Your task to perform on an android device: Clear all items from cart on costco. Search for asus rog on costco, select the first entry, and add it to the cart. Image 0: 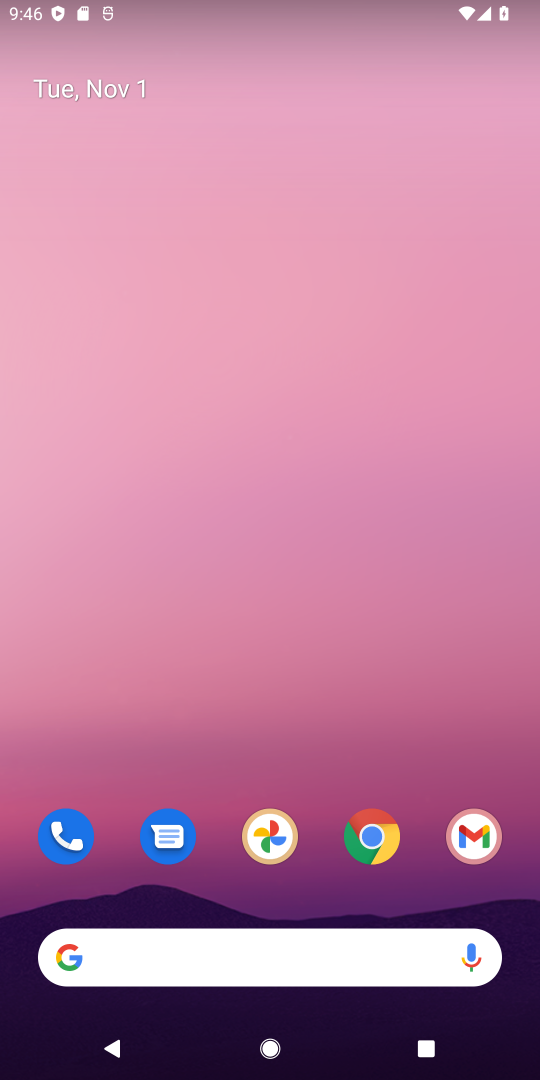
Step 0: click (363, 833)
Your task to perform on an android device: Clear all items from cart on costco. Search for asus rog on costco, select the first entry, and add it to the cart. Image 1: 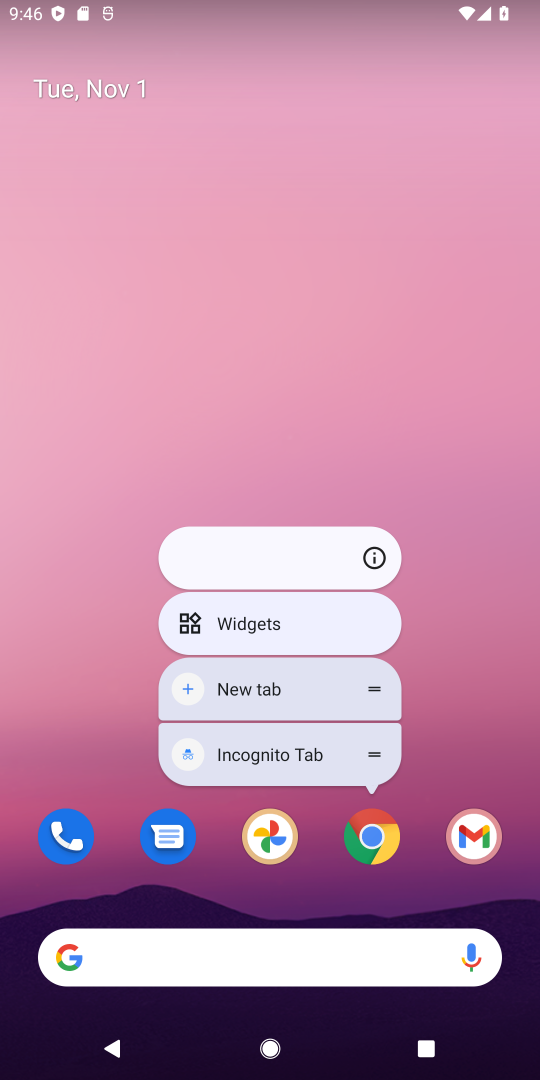
Step 1: click (368, 848)
Your task to perform on an android device: Clear all items from cart on costco. Search for asus rog on costco, select the first entry, and add it to the cart. Image 2: 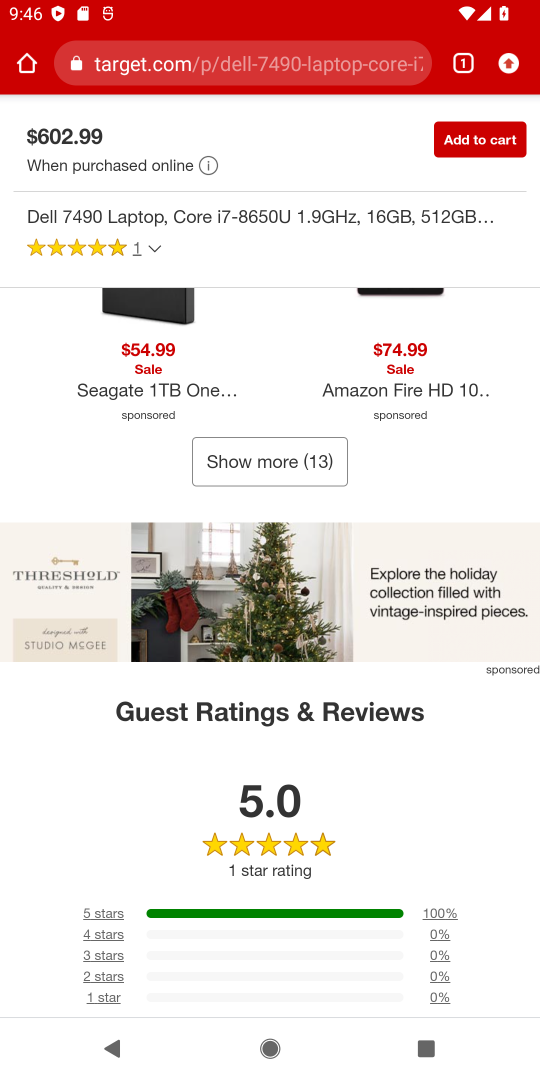
Step 2: click (193, 63)
Your task to perform on an android device: Clear all items from cart on costco. Search for asus rog on costco, select the first entry, and add it to the cart. Image 3: 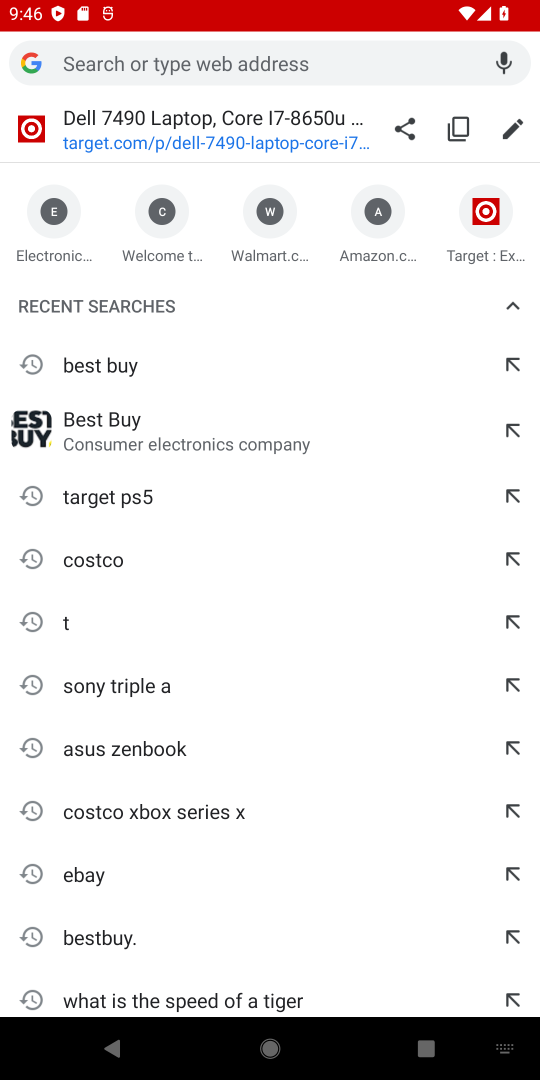
Step 3: type " costco"
Your task to perform on an android device: Clear all items from cart on costco. Search for asus rog on costco, select the first entry, and add it to the cart. Image 4: 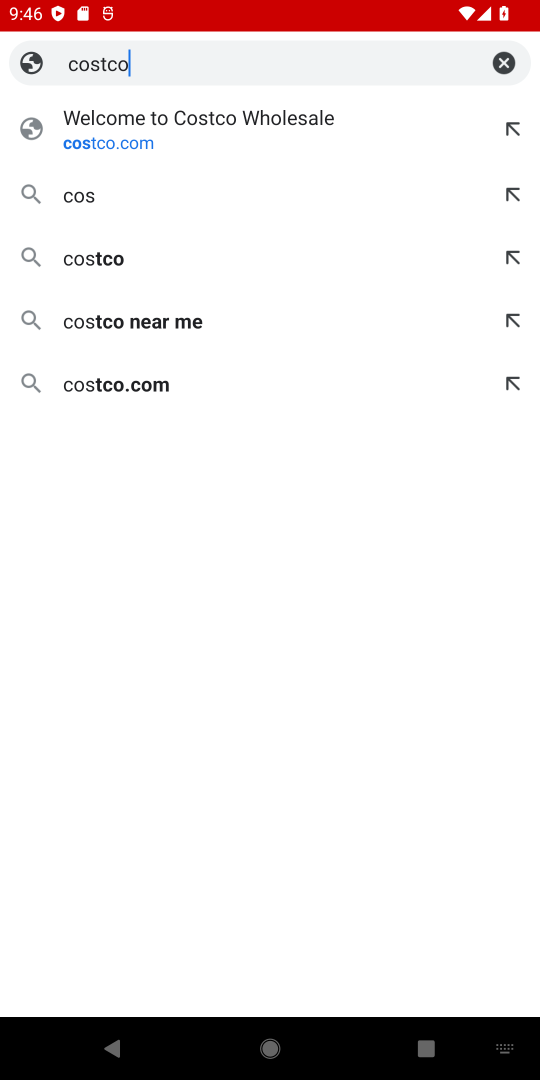
Step 4: type ""
Your task to perform on an android device: Clear all items from cart on costco. Search for asus rog on costco, select the first entry, and add it to the cart. Image 5: 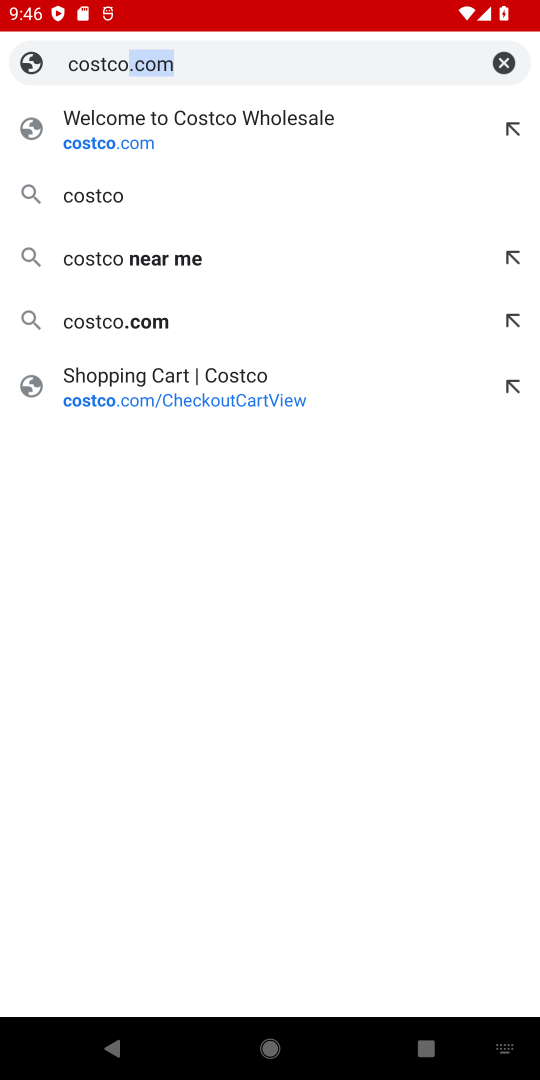
Step 5: click (196, 118)
Your task to perform on an android device: Clear all items from cart on costco. Search for asus rog on costco, select the first entry, and add it to the cart. Image 6: 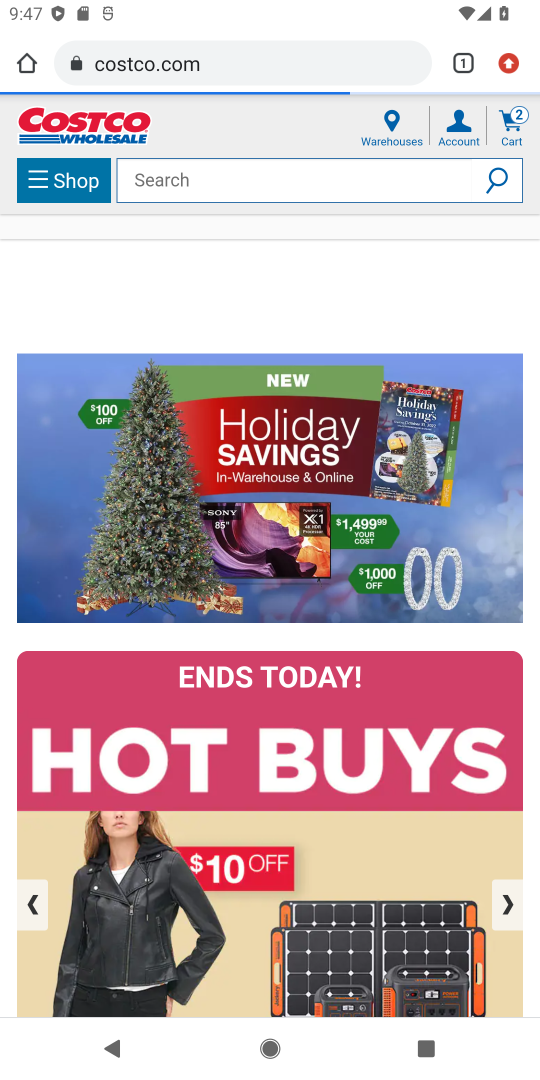
Step 6: click (165, 193)
Your task to perform on an android device: Clear all items from cart on costco. Search for asus rog on costco, select the first entry, and add it to the cart. Image 7: 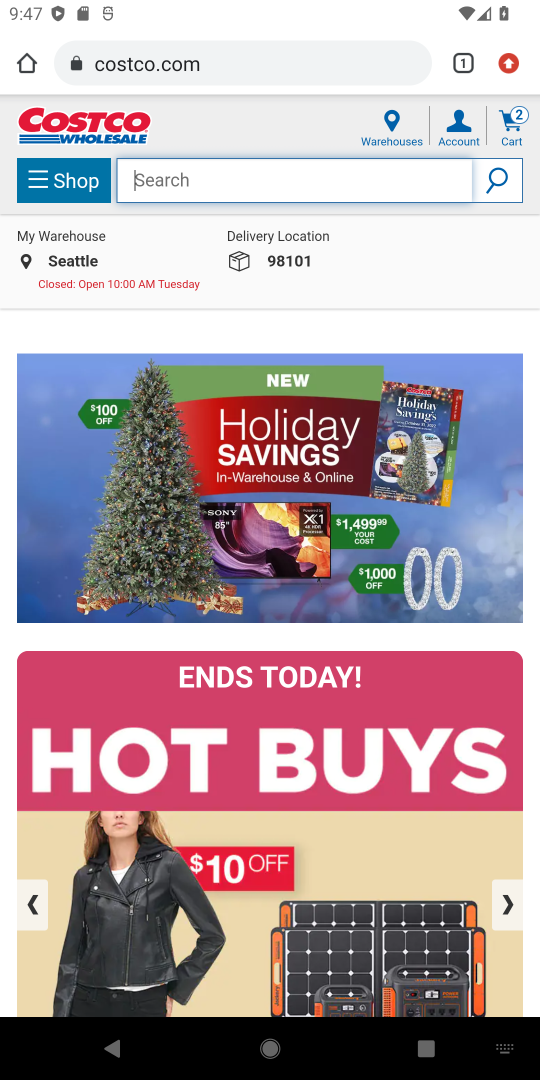
Step 7: type "asus rog"
Your task to perform on an android device: Clear all items from cart on costco. Search for asus rog on costco, select the first entry, and add it to the cart. Image 8: 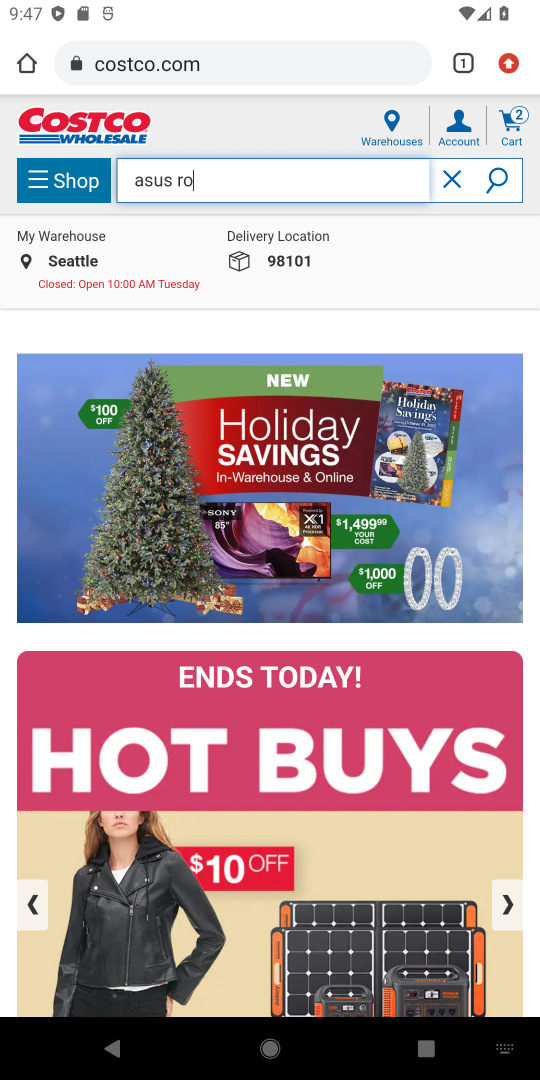
Step 8: type ""
Your task to perform on an android device: Clear all items from cart on costco. Search for asus rog on costco, select the first entry, and add it to the cart. Image 9: 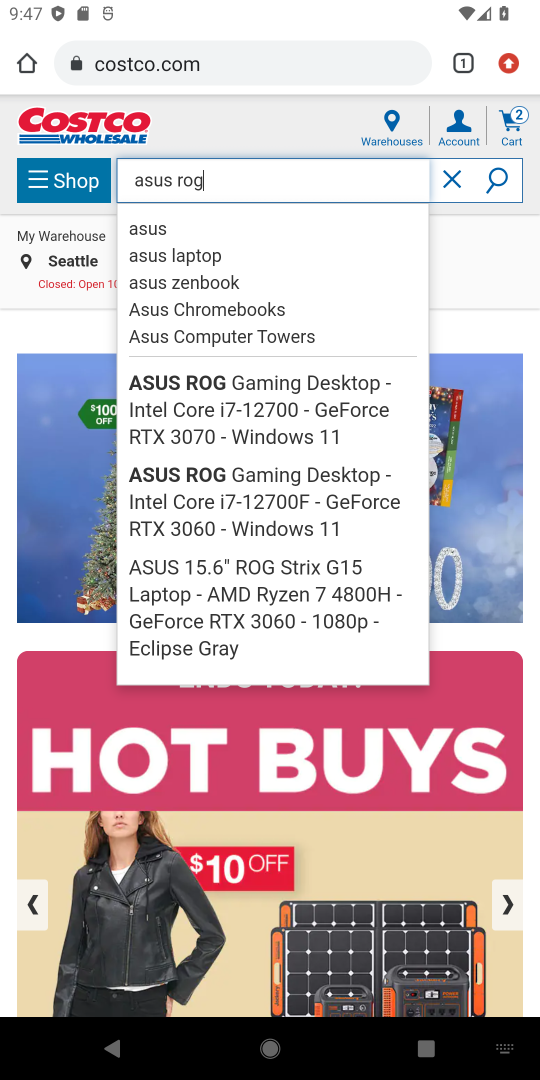
Step 9: press enter
Your task to perform on an android device: Clear all items from cart on costco. Search for asus rog on costco, select the first entry, and add it to the cart. Image 10: 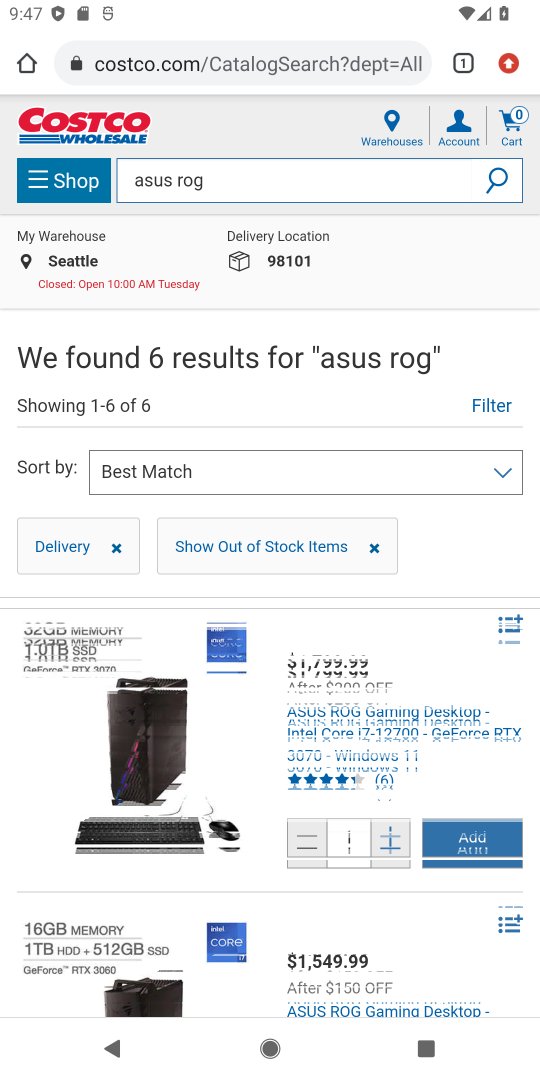
Step 10: click (315, 731)
Your task to perform on an android device: Clear all items from cart on costco. Search for asus rog on costco, select the first entry, and add it to the cart. Image 11: 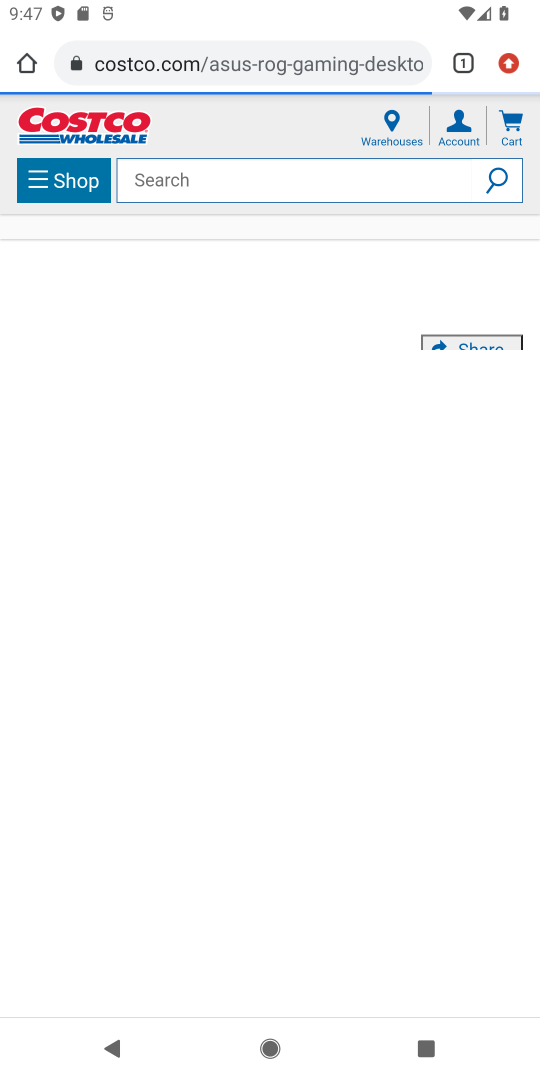
Step 11: drag from (340, 800) to (380, 282)
Your task to perform on an android device: Clear all items from cart on costco. Search for asus rog on costco, select the first entry, and add it to the cart. Image 12: 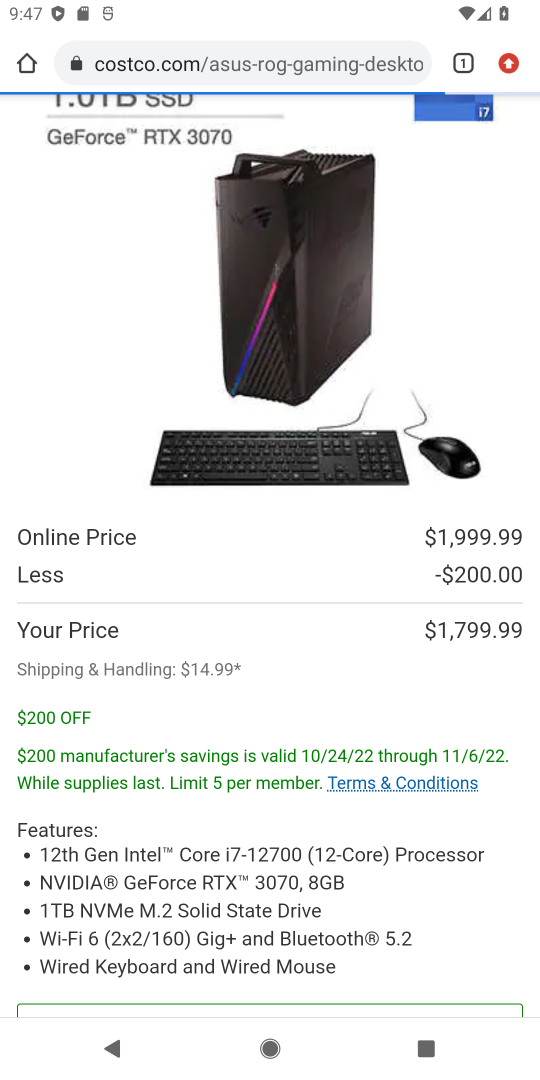
Step 12: drag from (358, 735) to (349, 474)
Your task to perform on an android device: Clear all items from cart on costco. Search for asus rog on costco, select the first entry, and add it to the cart. Image 13: 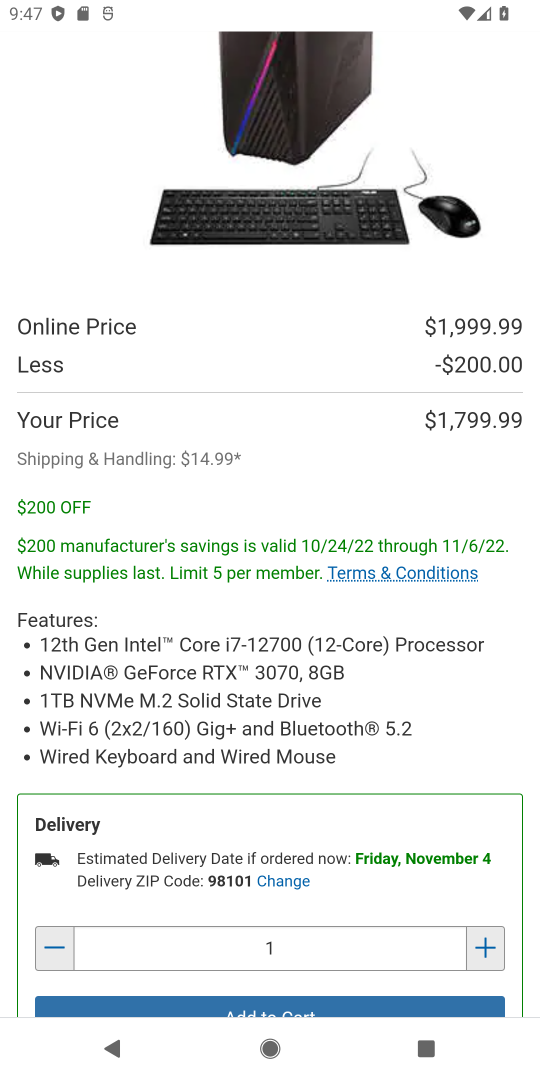
Step 13: click (282, 976)
Your task to perform on an android device: Clear all items from cart on costco. Search for asus rog on costco, select the first entry, and add it to the cart. Image 14: 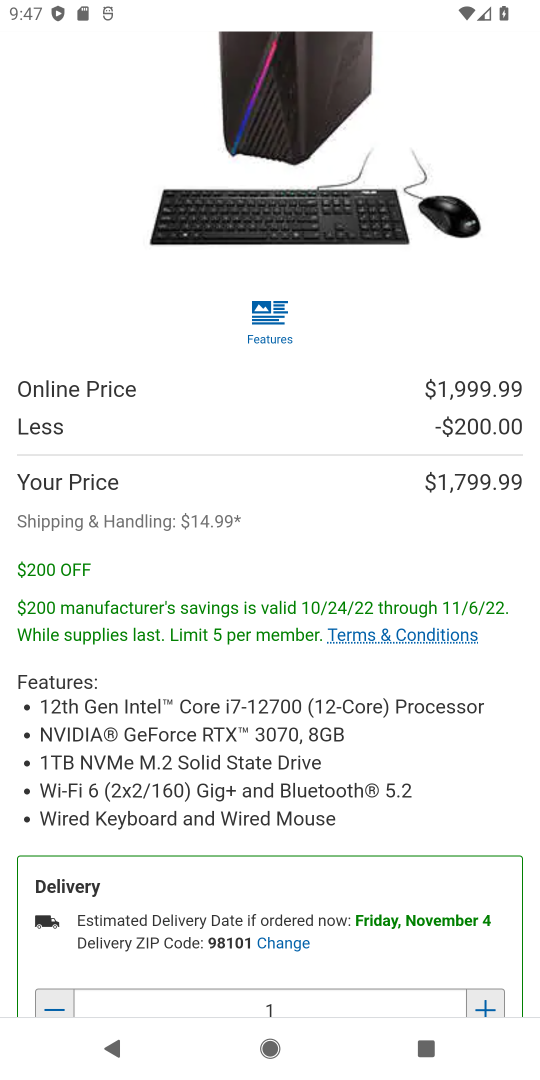
Step 14: drag from (282, 976) to (356, 610)
Your task to perform on an android device: Clear all items from cart on costco. Search for asus rog on costco, select the first entry, and add it to the cart. Image 15: 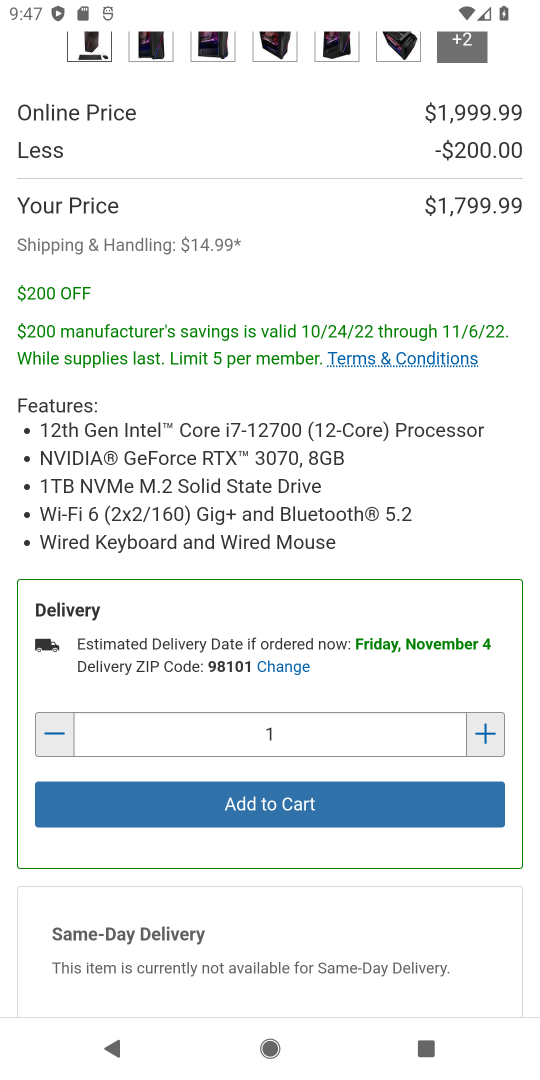
Step 15: click (312, 823)
Your task to perform on an android device: Clear all items from cart on costco. Search for asus rog on costco, select the first entry, and add it to the cart. Image 16: 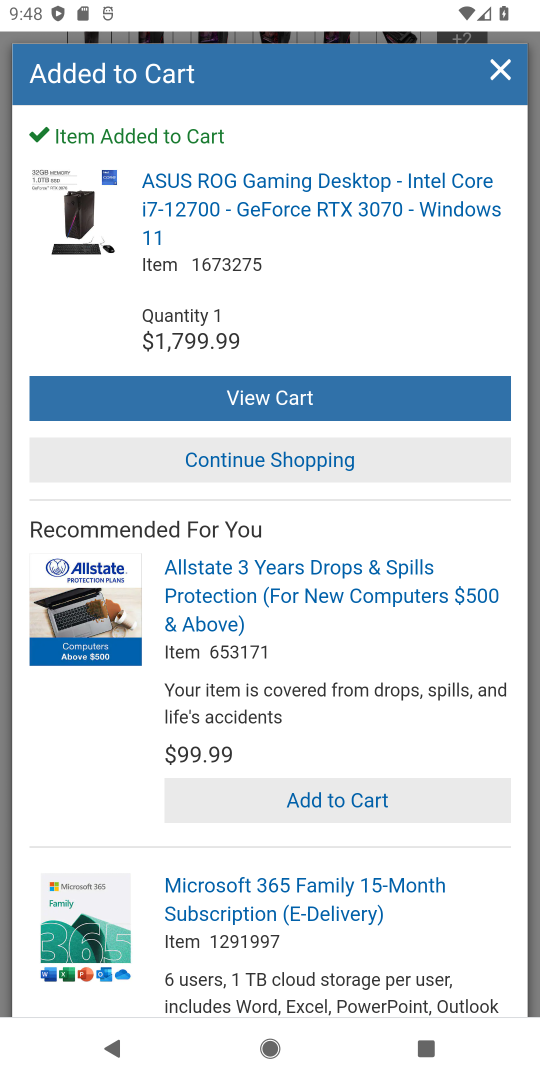
Step 16: drag from (314, 773) to (345, 483)
Your task to perform on an android device: Clear all items from cart on costco. Search for asus rog on costco, select the first entry, and add it to the cart. Image 17: 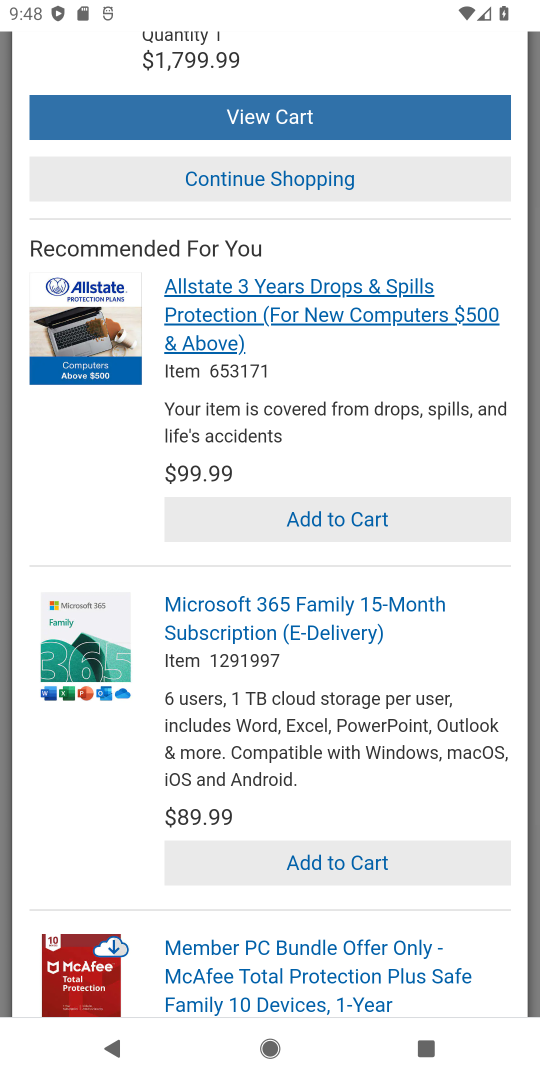
Step 17: click (331, 396)
Your task to perform on an android device: Clear all items from cart on costco. Search for asus rog on costco, select the first entry, and add it to the cart. Image 18: 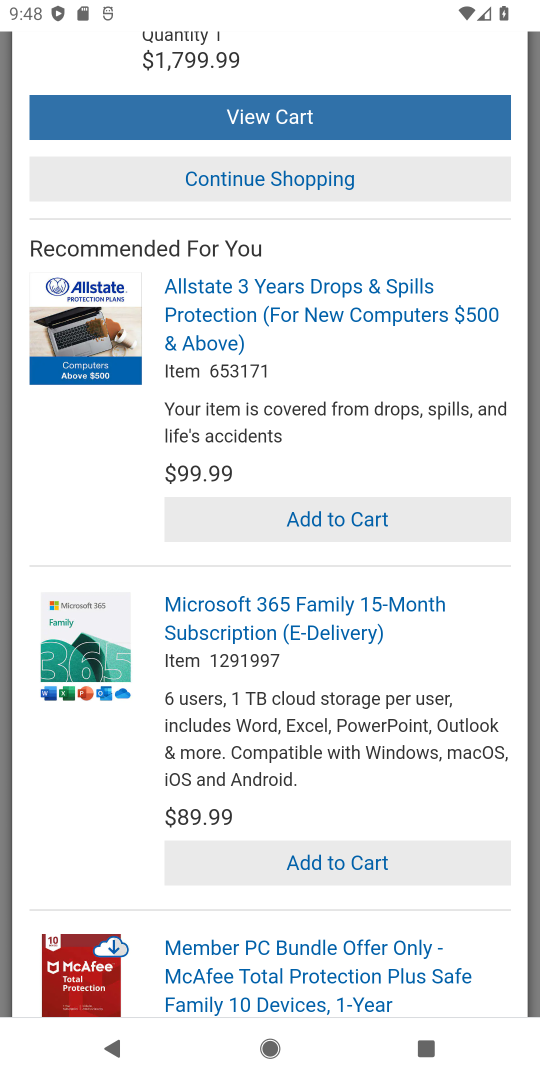
Step 18: click (347, 109)
Your task to perform on an android device: Clear all items from cart on costco. Search for asus rog on costco, select the first entry, and add it to the cart. Image 19: 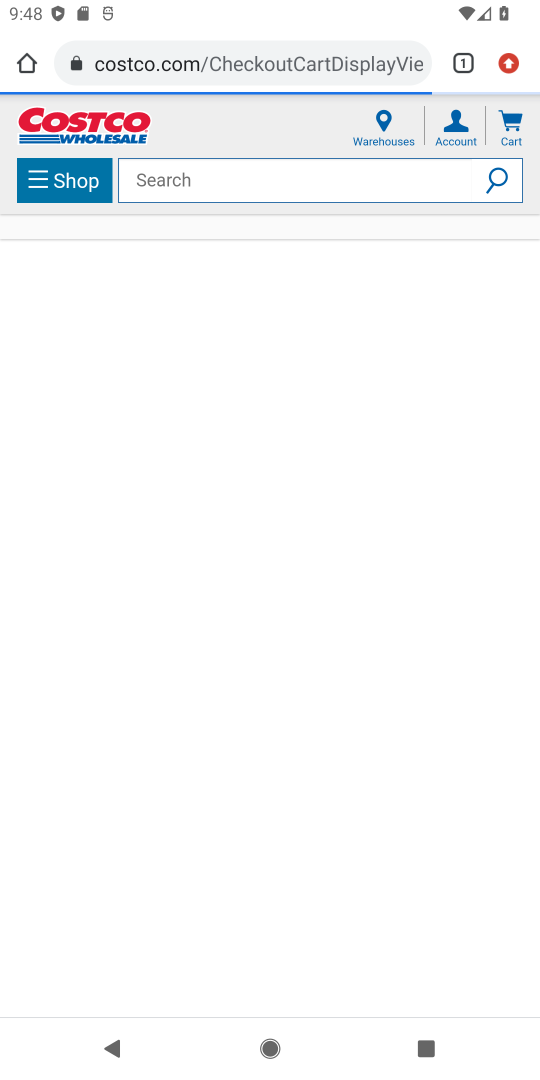
Step 19: drag from (268, 640) to (315, 302)
Your task to perform on an android device: Clear all items from cart on costco. Search for asus rog on costco, select the first entry, and add it to the cart. Image 20: 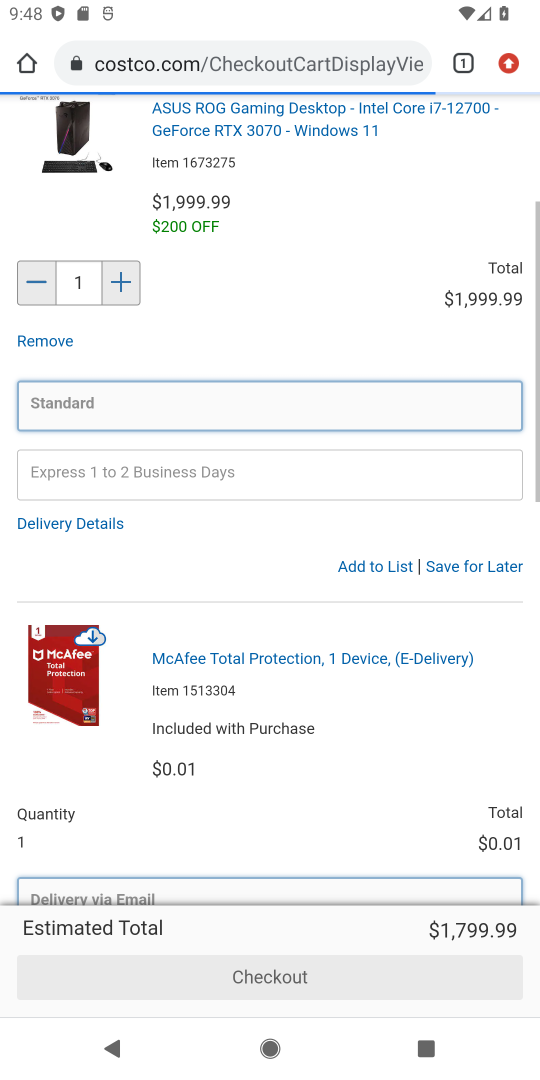
Step 20: drag from (281, 581) to (318, 212)
Your task to perform on an android device: Clear all items from cart on costco. Search for asus rog on costco, select the first entry, and add it to the cart. Image 21: 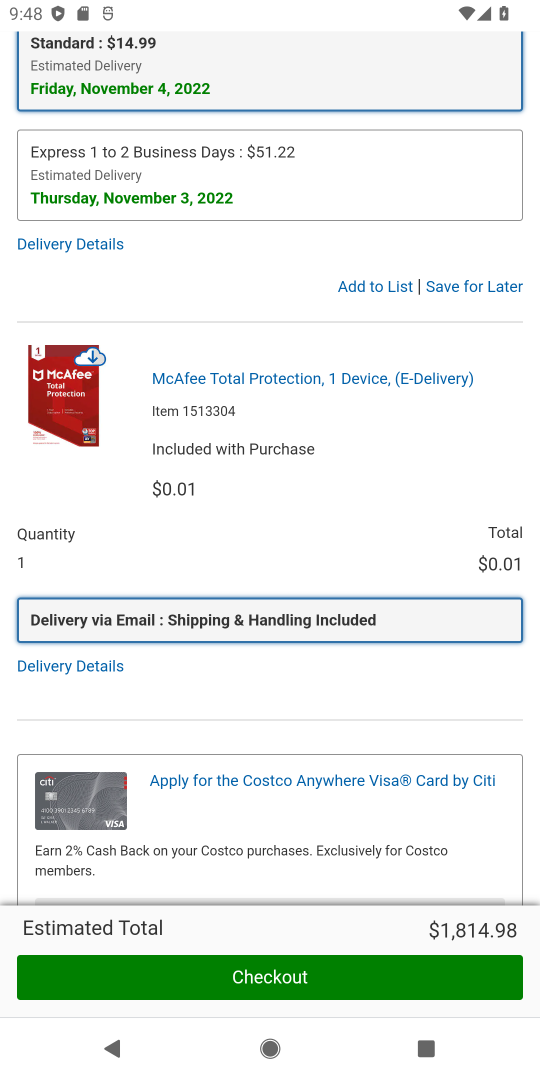
Step 21: drag from (347, 267) to (353, 612)
Your task to perform on an android device: Clear all items from cart on costco. Search for asus rog on costco, select the first entry, and add it to the cart. Image 22: 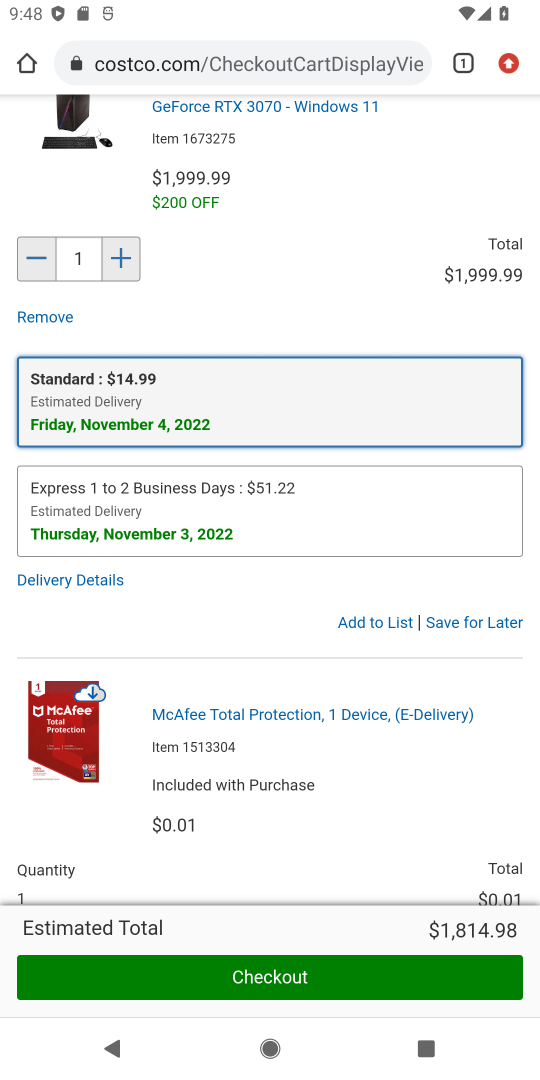
Step 22: drag from (272, 733) to (310, 351)
Your task to perform on an android device: Clear all items from cart on costco. Search for asus rog on costco, select the first entry, and add it to the cart. Image 23: 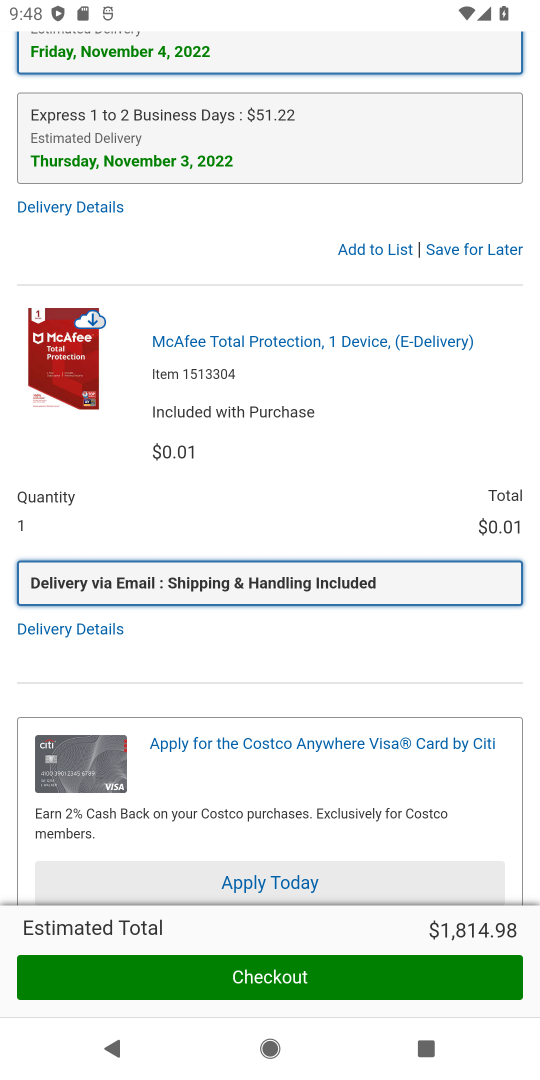
Step 23: drag from (411, 162) to (414, 319)
Your task to perform on an android device: Clear all items from cart on costco. Search for asus rog on costco, select the first entry, and add it to the cart. Image 24: 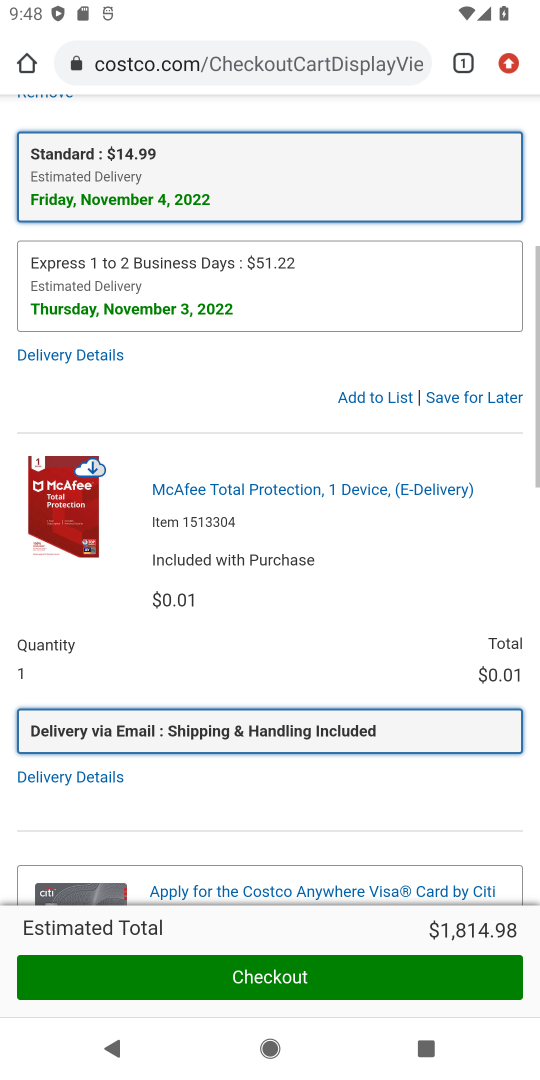
Step 24: click (329, 956)
Your task to perform on an android device: Clear all items from cart on costco. Search for asus rog on costco, select the first entry, and add it to the cart. Image 25: 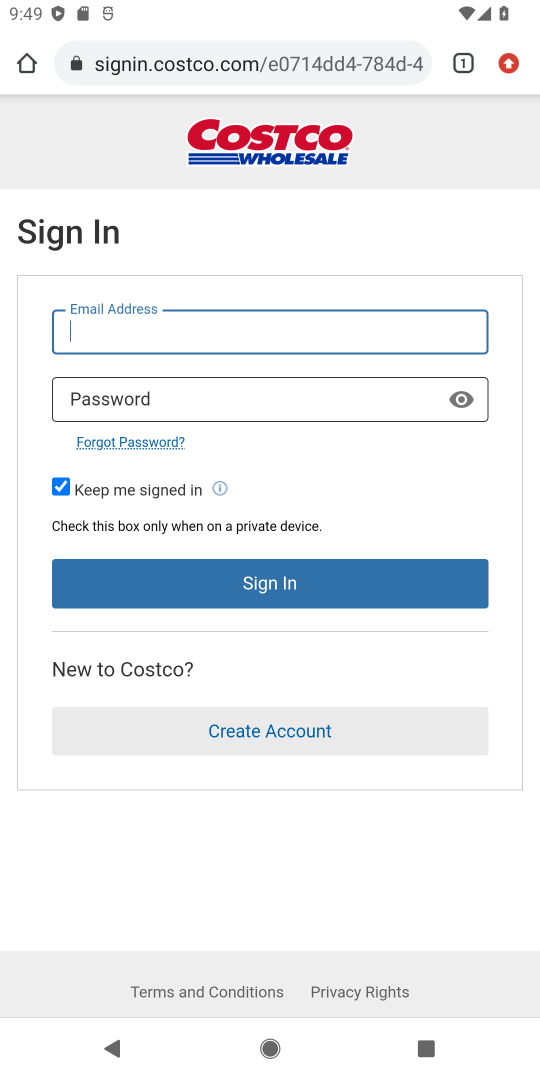
Step 25: task complete